Your task to perform on an android device: Open battery settings Image 0: 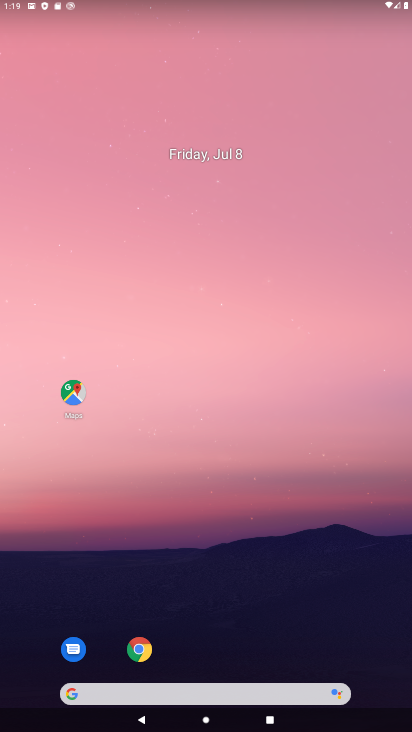
Step 0: drag from (309, 606) to (274, 65)
Your task to perform on an android device: Open battery settings Image 1: 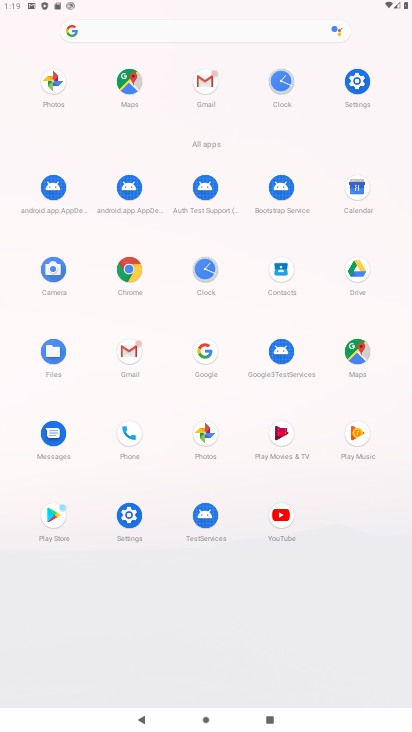
Step 1: click (360, 80)
Your task to perform on an android device: Open battery settings Image 2: 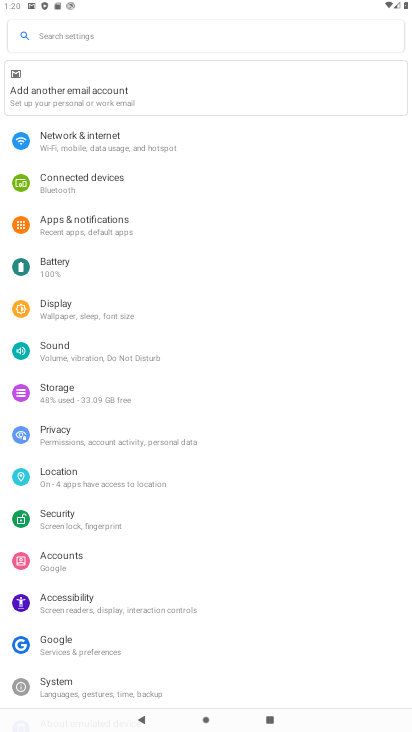
Step 2: click (68, 261)
Your task to perform on an android device: Open battery settings Image 3: 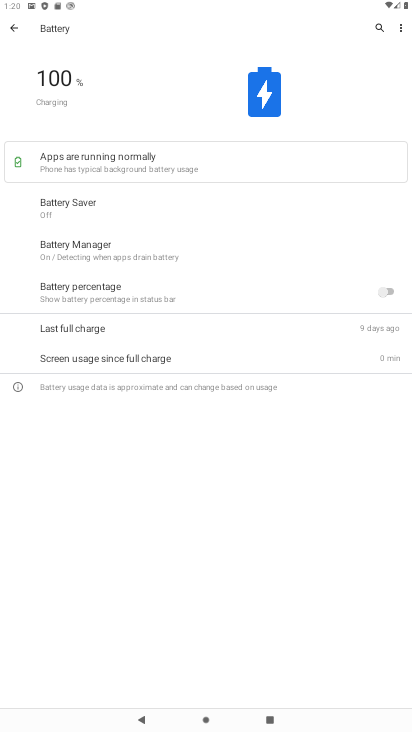
Step 3: task complete